Your task to perform on an android device: turn notification dots on Image 0: 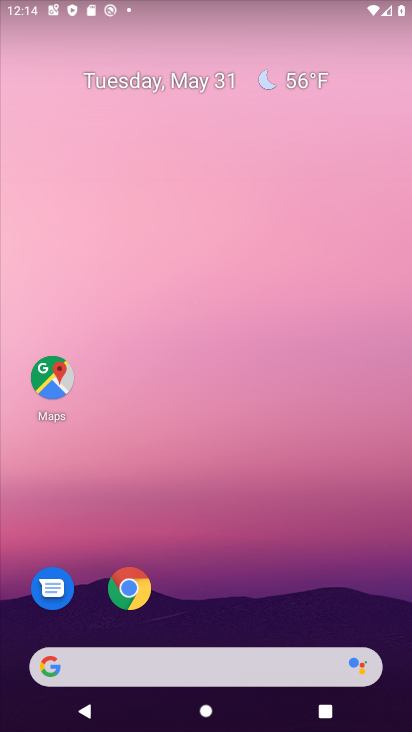
Step 0: drag from (202, 624) to (249, 65)
Your task to perform on an android device: turn notification dots on Image 1: 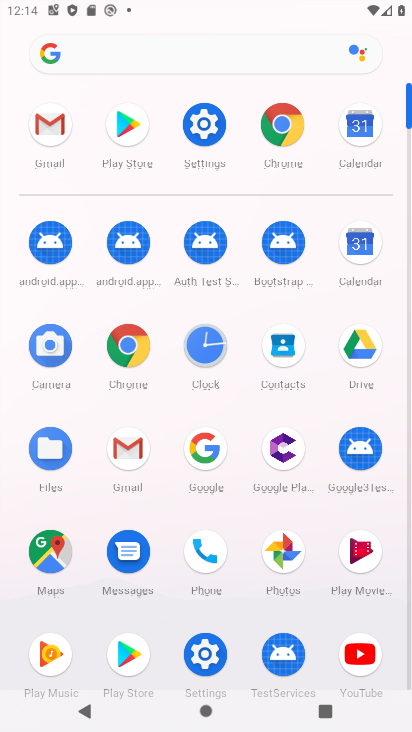
Step 1: click (201, 130)
Your task to perform on an android device: turn notification dots on Image 2: 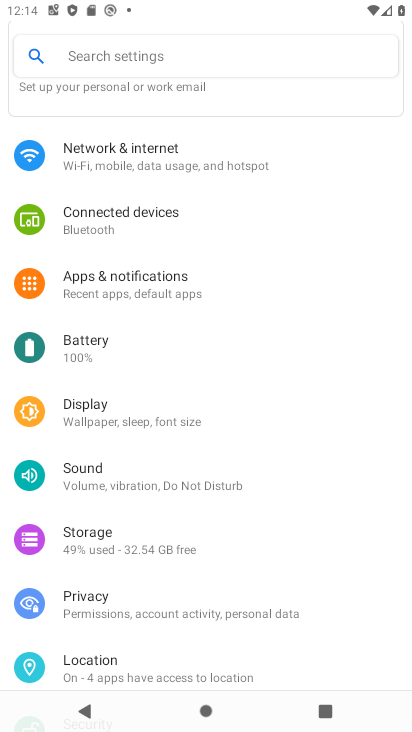
Step 2: click (107, 288)
Your task to perform on an android device: turn notification dots on Image 3: 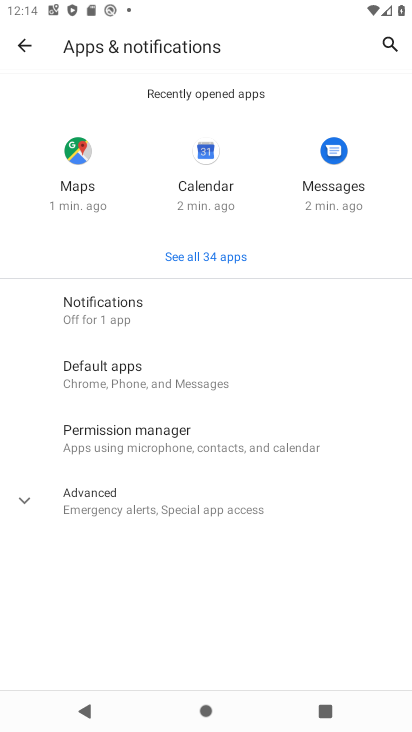
Step 3: click (109, 315)
Your task to perform on an android device: turn notification dots on Image 4: 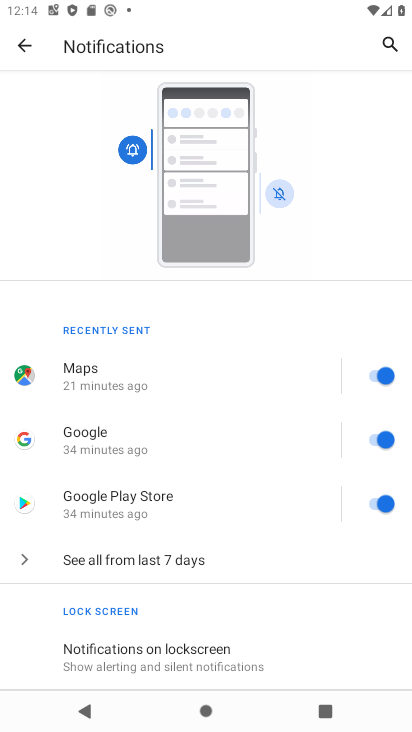
Step 4: drag from (166, 618) to (238, 288)
Your task to perform on an android device: turn notification dots on Image 5: 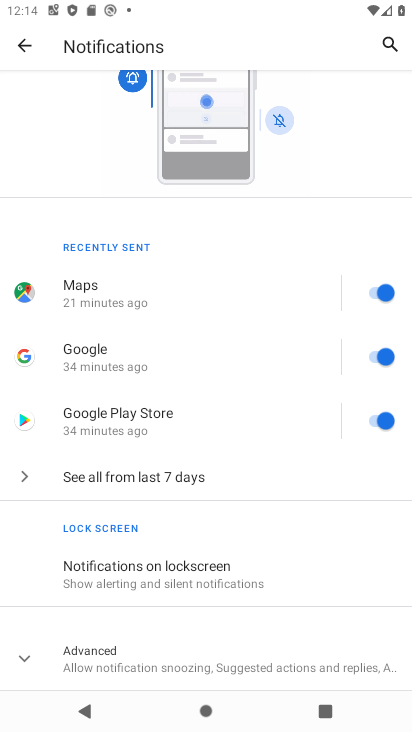
Step 5: click (156, 654)
Your task to perform on an android device: turn notification dots on Image 6: 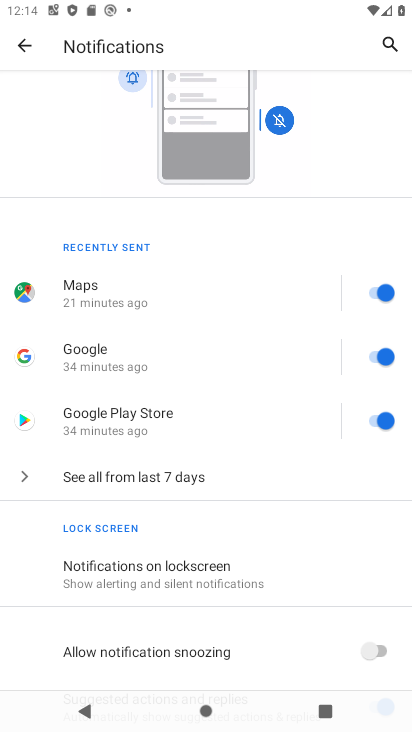
Step 6: drag from (161, 650) to (238, 295)
Your task to perform on an android device: turn notification dots on Image 7: 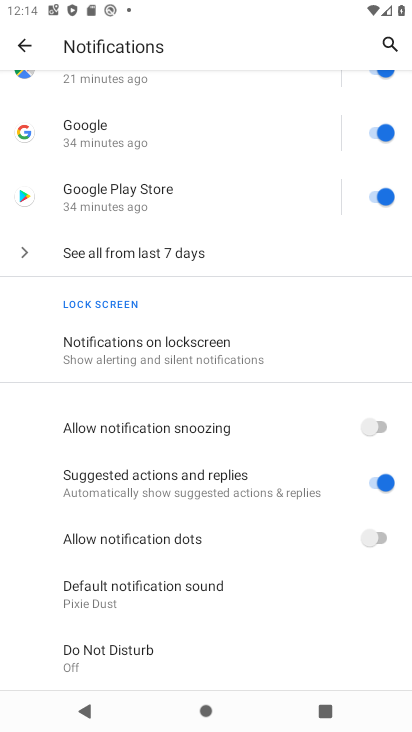
Step 7: click (385, 538)
Your task to perform on an android device: turn notification dots on Image 8: 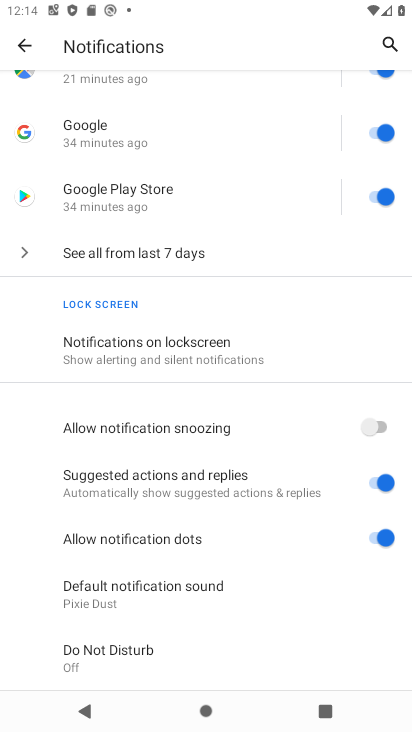
Step 8: task complete